Your task to perform on an android device: Open internet settings Image 0: 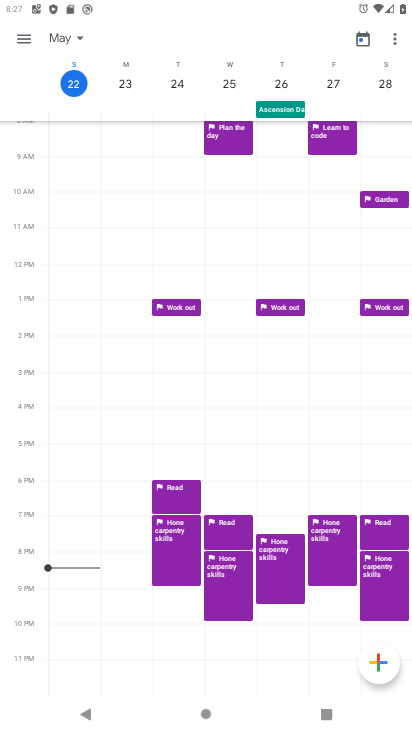
Step 0: press home button
Your task to perform on an android device: Open internet settings Image 1: 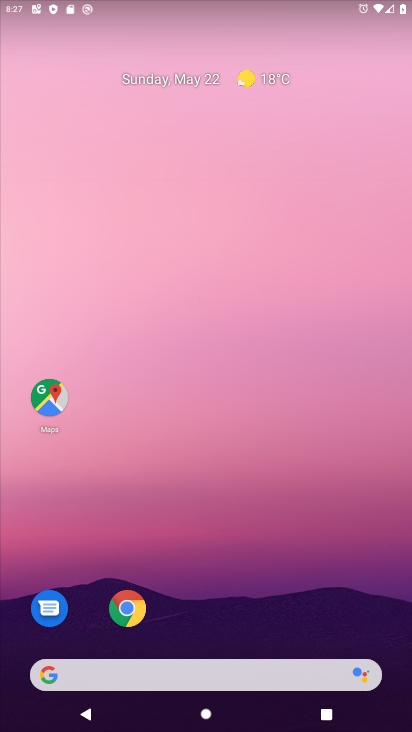
Step 1: drag from (237, 728) to (237, 172)
Your task to perform on an android device: Open internet settings Image 2: 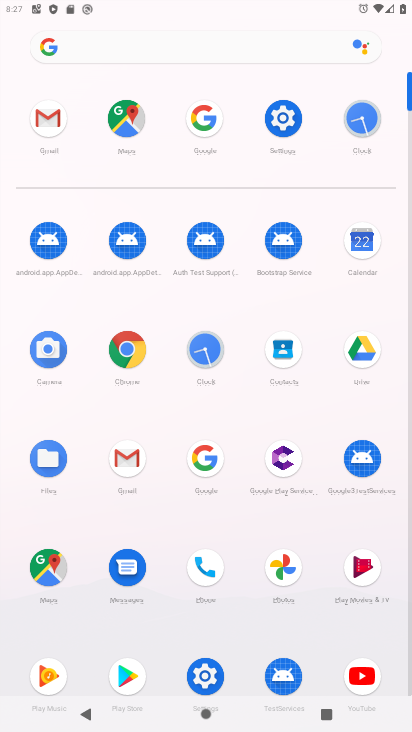
Step 2: click (286, 121)
Your task to perform on an android device: Open internet settings Image 3: 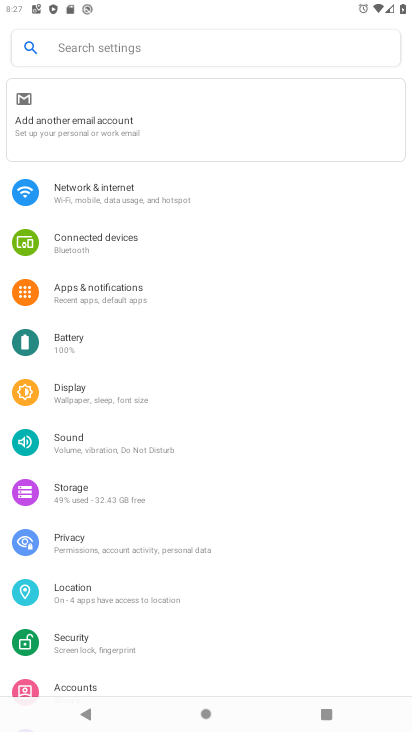
Step 3: click (111, 182)
Your task to perform on an android device: Open internet settings Image 4: 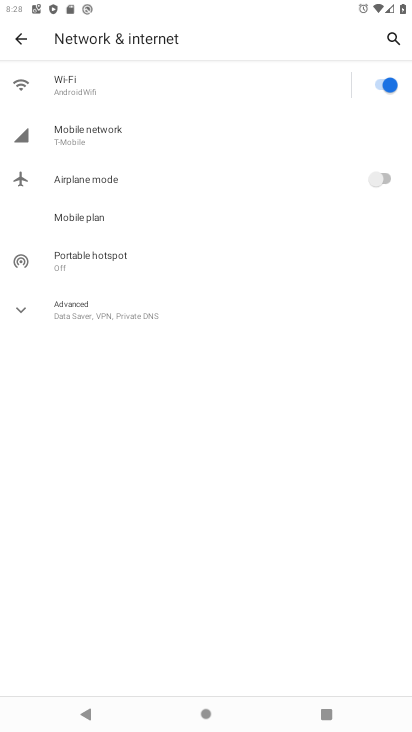
Step 4: task complete